Your task to perform on an android device: open a bookmark in the chrome app Image 0: 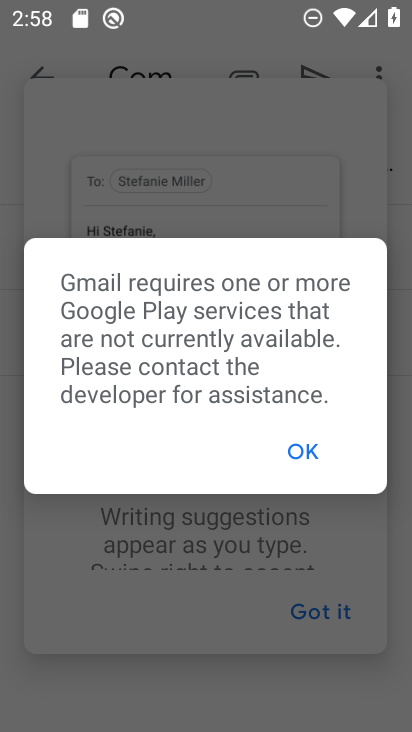
Step 0: press home button
Your task to perform on an android device: open a bookmark in the chrome app Image 1: 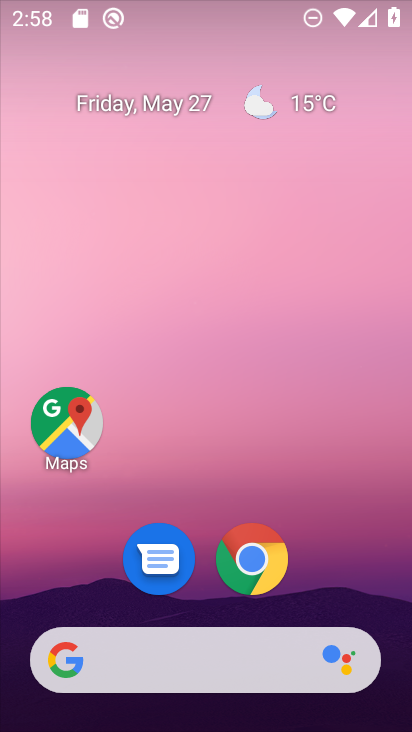
Step 1: drag from (262, 677) to (271, 14)
Your task to perform on an android device: open a bookmark in the chrome app Image 2: 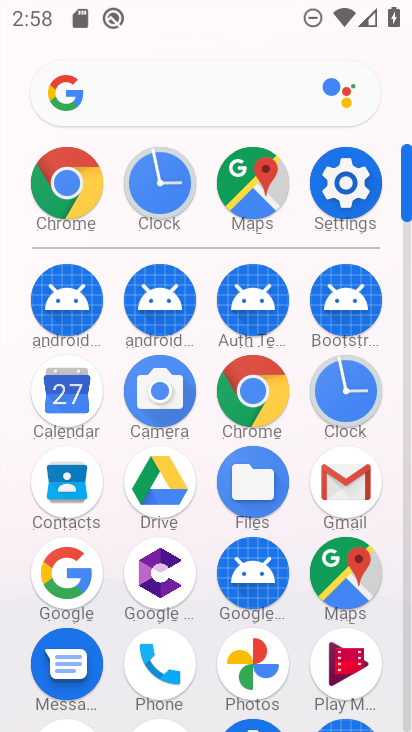
Step 2: click (260, 363)
Your task to perform on an android device: open a bookmark in the chrome app Image 3: 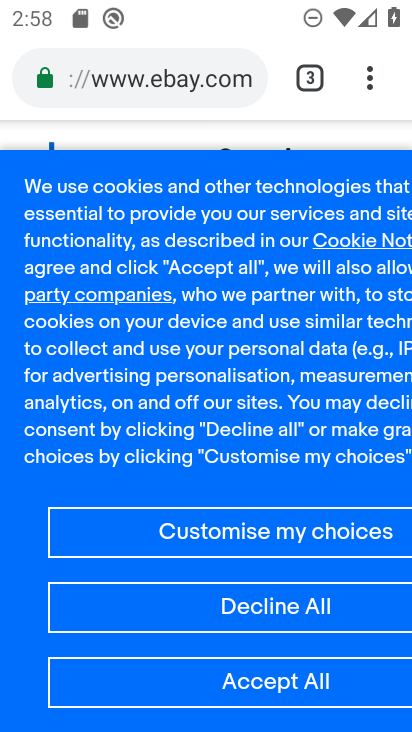
Step 3: task complete